Your task to perform on an android device: toggle notifications settings in the gmail app Image 0: 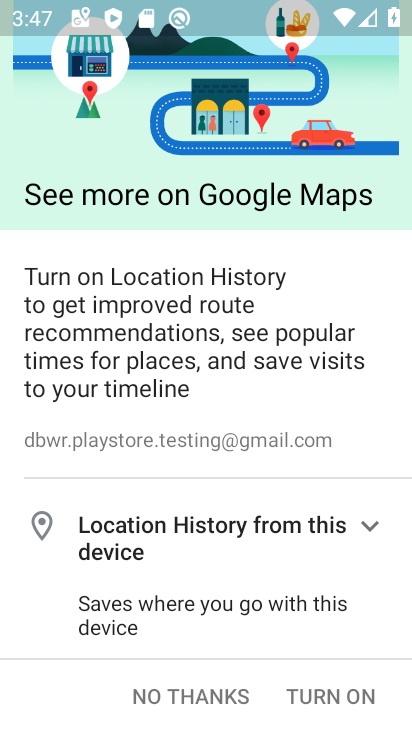
Step 0: press home button
Your task to perform on an android device: toggle notifications settings in the gmail app Image 1: 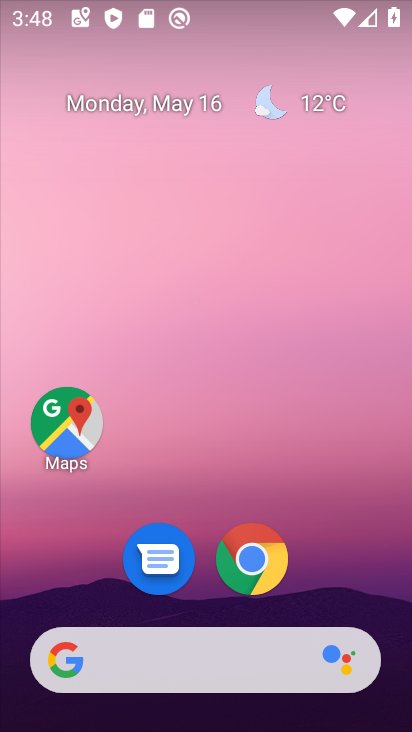
Step 1: drag from (408, 557) to (321, 235)
Your task to perform on an android device: toggle notifications settings in the gmail app Image 2: 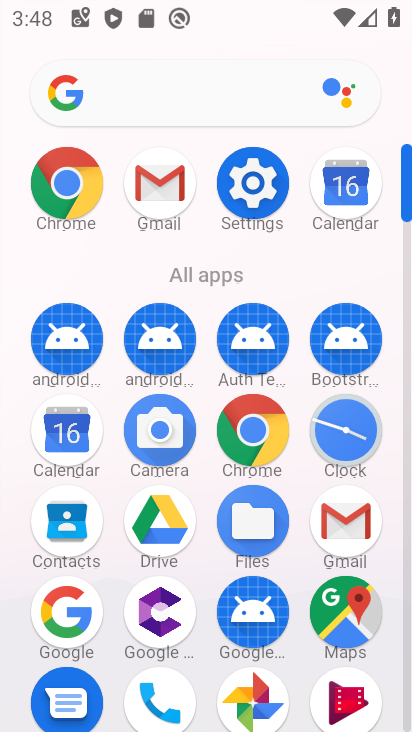
Step 2: click (148, 167)
Your task to perform on an android device: toggle notifications settings in the gmail app Image 3: 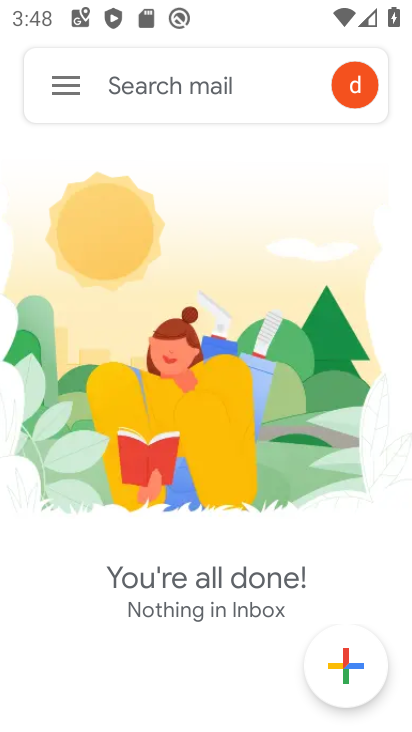
Step 3: click (90, 97)
Your task to perform on an android device: toggle notifications settings in the gmail app Image 4: 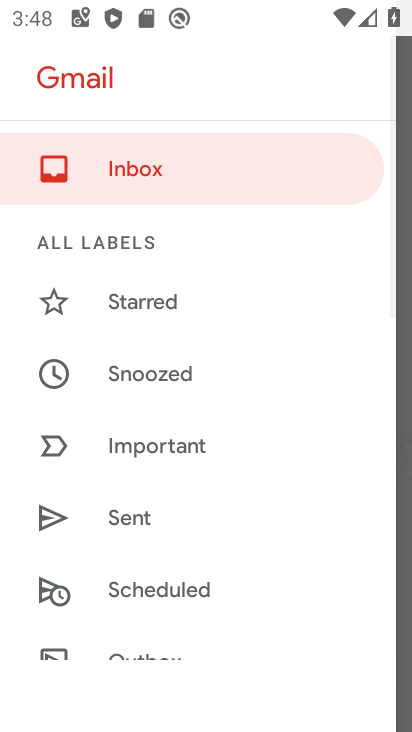
Step 4: drag from (128, 560) to (158, 238)
Your task to perform on an android device: toggle notifications settings in the gmail app Image 5: 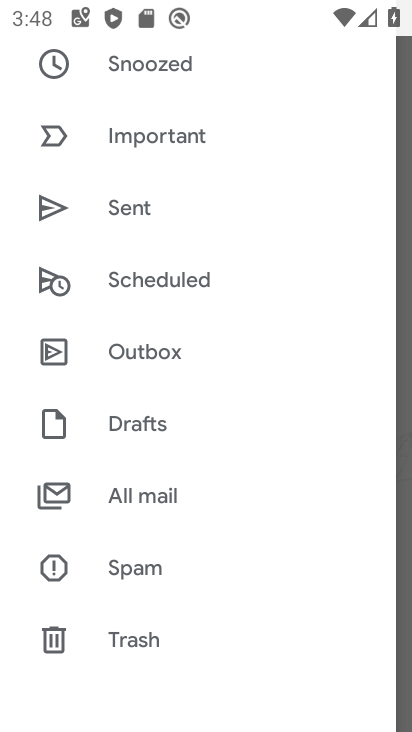
Step 5: click (182, 487)
Your task to perform on an android device: toggle notifications settings in the gmail app Image 6: 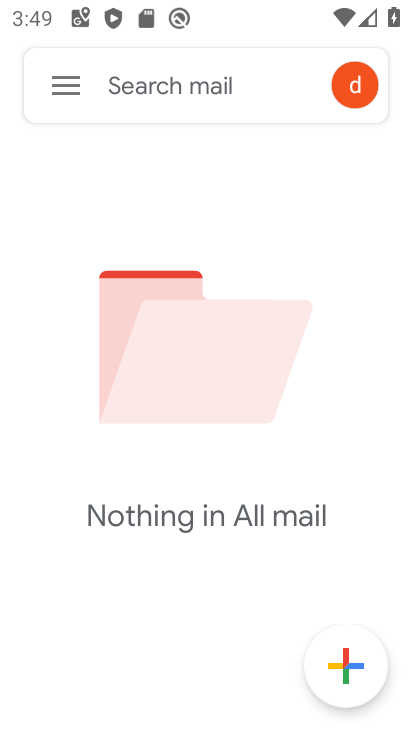
Step 6: drag from (141, 601) to (146, 336)
Your task to perform on an android device: toggle notifications settings in the gmail app Image 7: 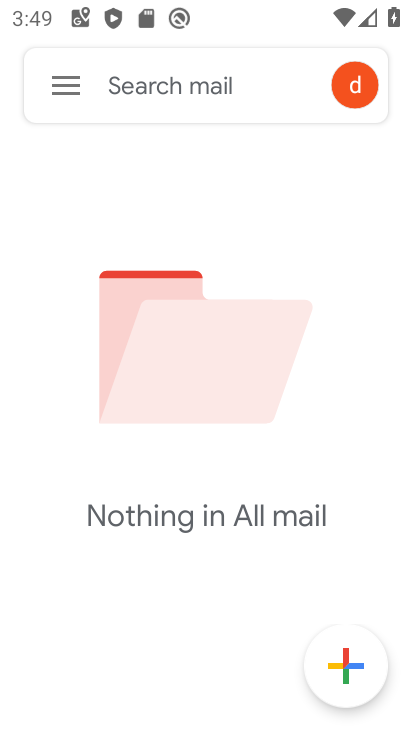
Step 7: click (70, 105)
Your task to perform on an android device: toggle notifications settings in the gmail app Image 8: 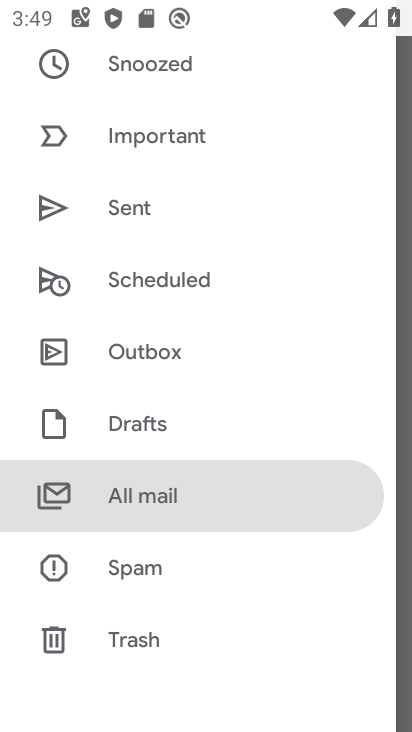
Step 8: drag from (168, 133) to (146, 526)
Your task to perform on an android device: toggle notifications settings in the gmail app Image 9: 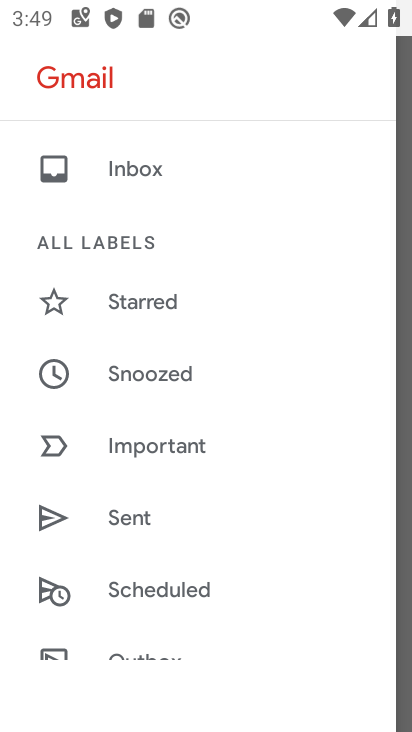
Step 9: drag from (146, 138) to (143, 469)
Your task to perform on an android device: toggle notifications settings in the gmail app Image 10: 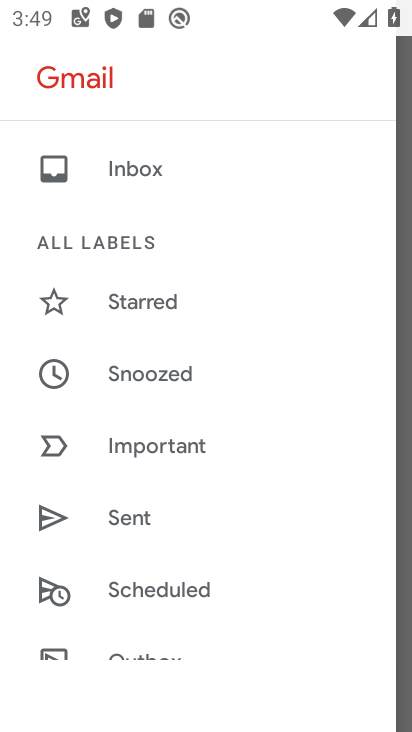
Step 10: drag from (132, 599) to (134, 177)
Your task to perform on an android device: toggle notifications settings in the gmail app Image 11: 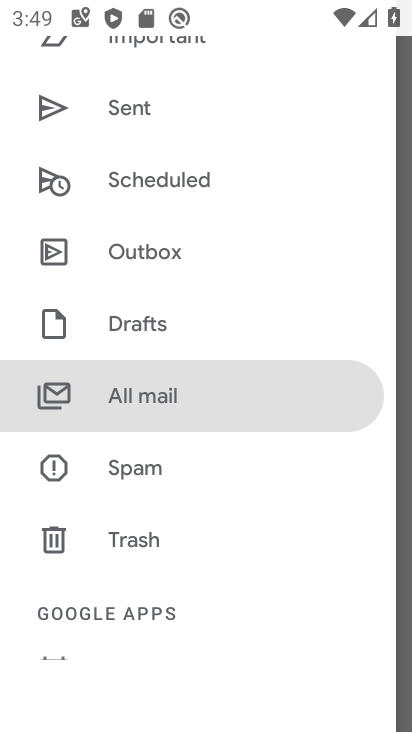
Step 11: drag from (114, 578) to (134, 320)
Your task to perform on an android device: toggle notifications settings in the gmail app Image 12: 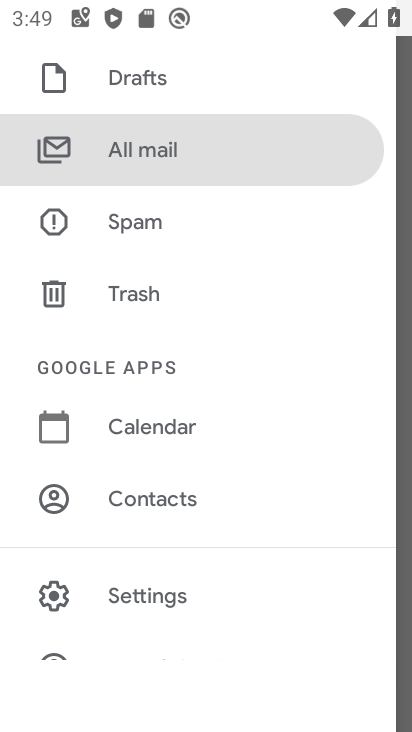
Step 12: click (110, 574)
Your task to perform on an android device: toggle notifications settings in the gmail app Image 13: 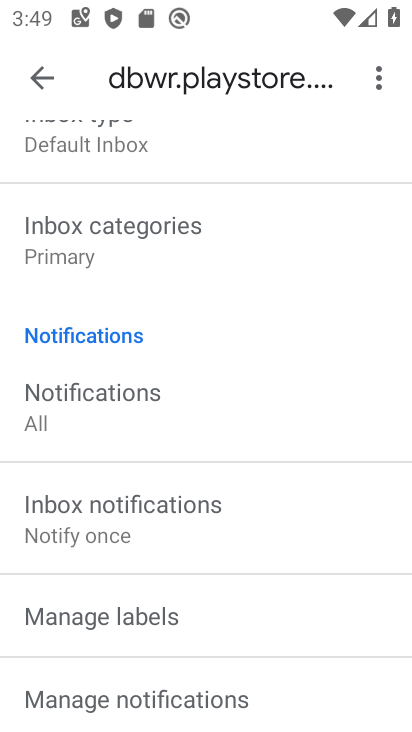
Step 13: drag from (180, 584) to (205, 140)
Your task to perform on an android device: toggle notifications settings in the gmail app Image 14: 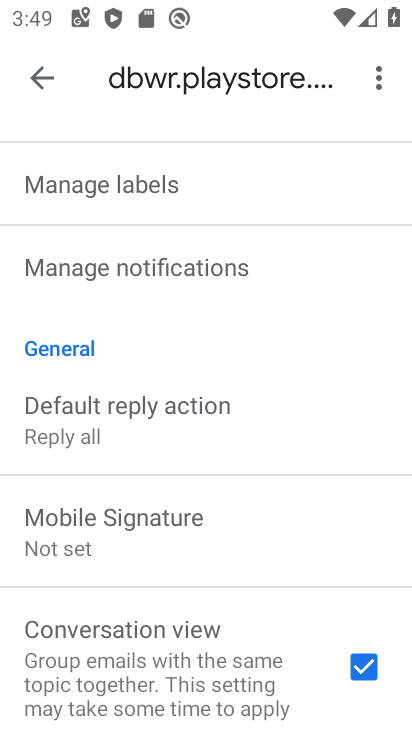
Step 14: click (205, 256)
Your task to perform on an android device: toggle notifications settings in the gmail app Image 15: 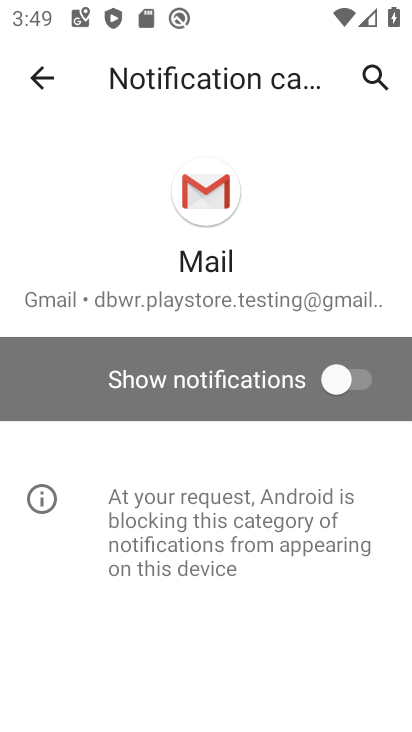
Step 15: click (270, 342)
Your task to perform on an android device: toggle notifications settings in the gmail app Image 16: 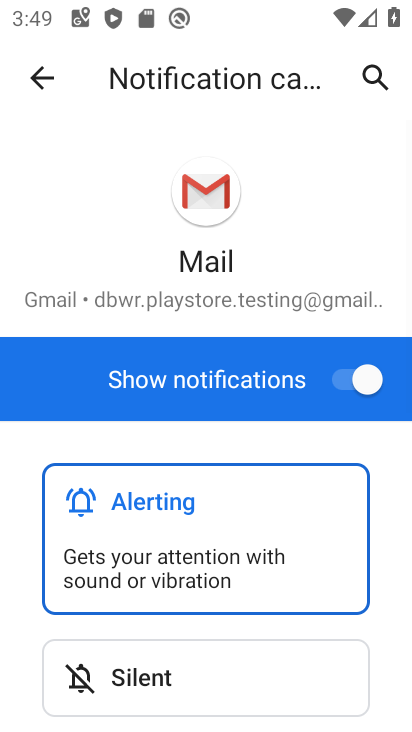
Step 16: task complete